Your task to perform on an android device: Turn off the flashlight Image 0: 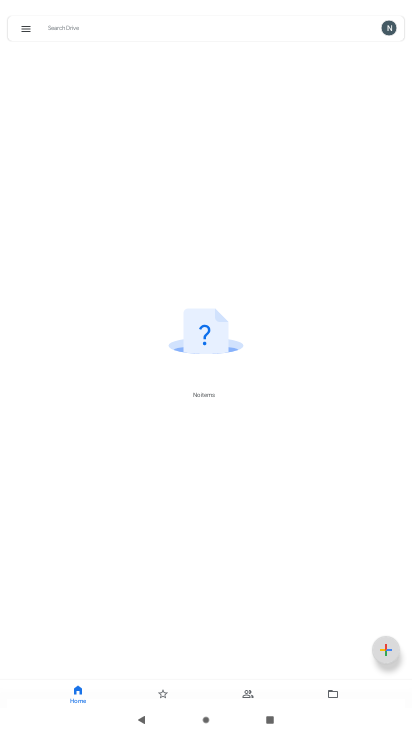
Step 0: press home button
Your task to perform on an android device: Turn off the flashlight Image 1: 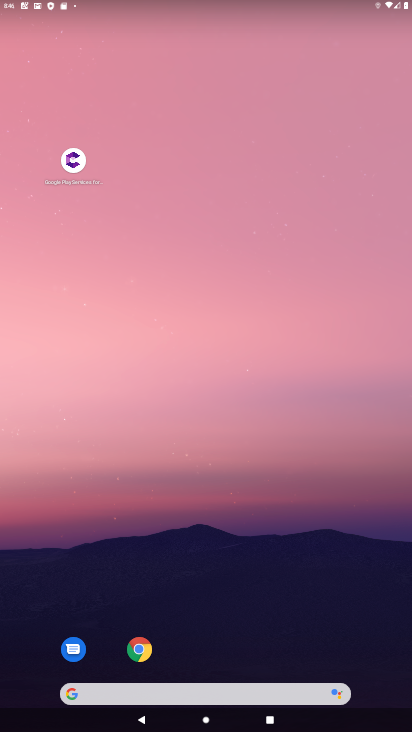
Step 1: task complete